Your task to perform on an android device: Search for sushi restaurants on Maps Image 0: 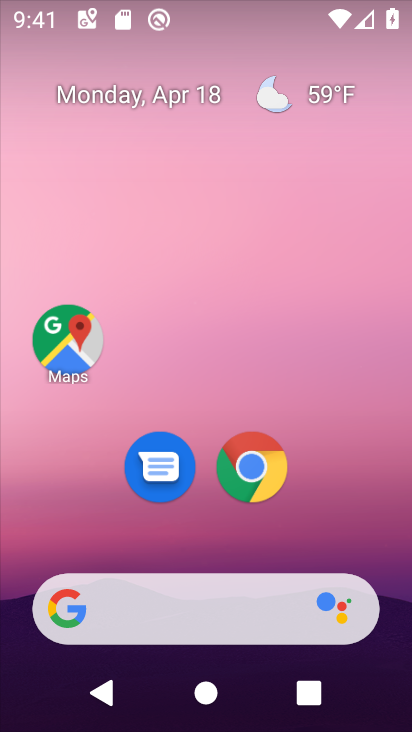
Step 0: click (72, 339)
Your task to perform on an android device: Search for sushi restaurants on Maps Image 1: 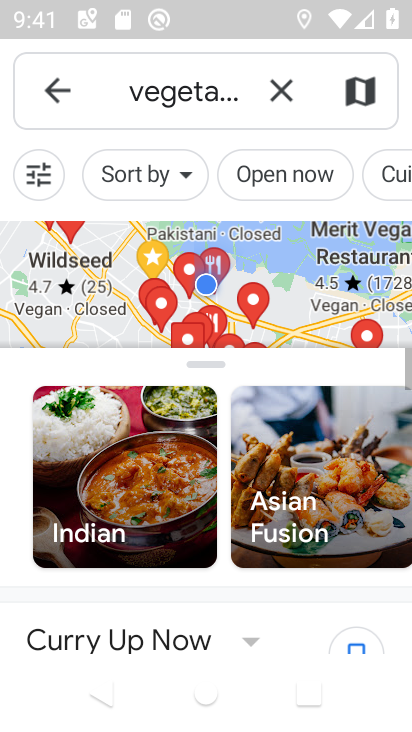
Step 1: click (271, 87)
Your task to perform on an android device: Search for sushi restaurants on Maps Image 2: 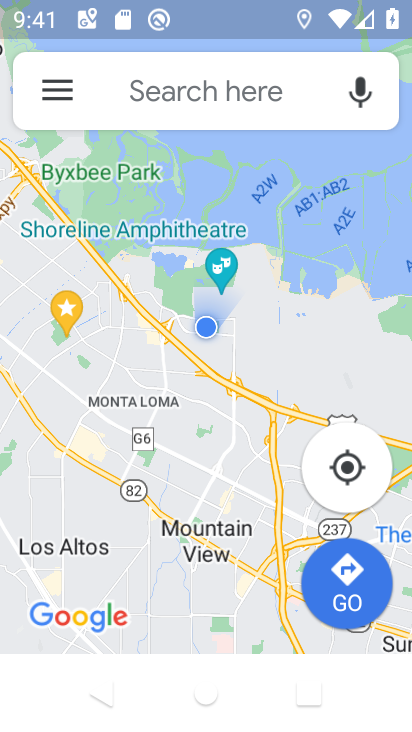
Step 2: click (217, 88)
Your task to perform on an android device: Search for sushi restaurants on Maps Image 3: 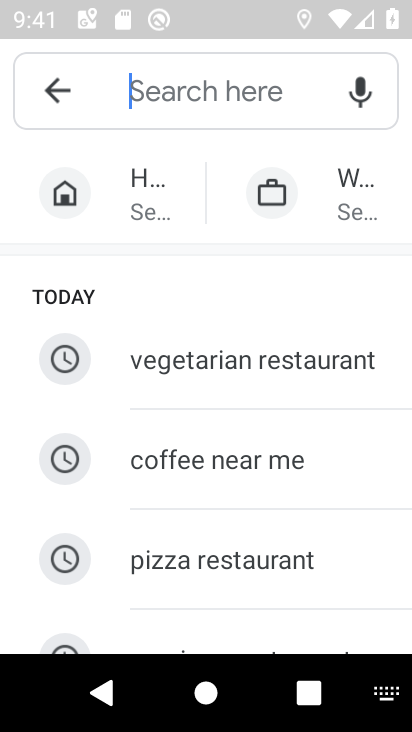
Step 3: drag from (240, 540) to (264, 100)
Your task to perform on an android device: Search for sushi restaurants on Maps Image 4: 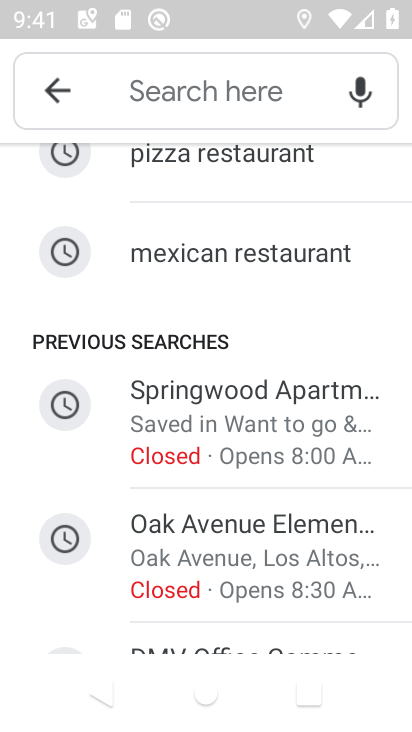
Step 4: drag from (232, 293) to (223, 677)
Your task to perform on an android device: Search for sushi restaurants on Maps Image 5: 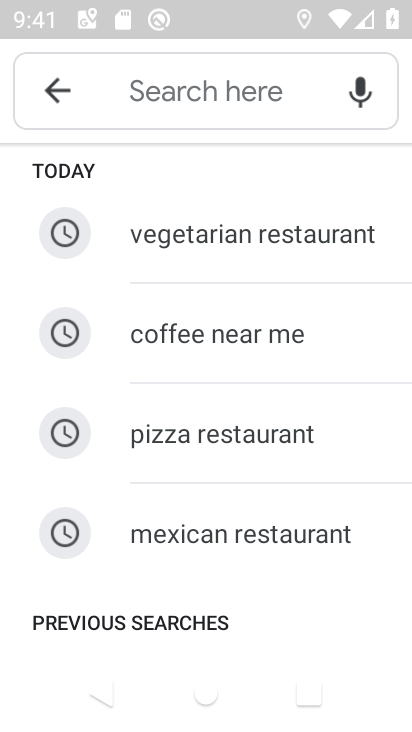
Step 5: click (165, 107)
Your task to perform on an android device: Search for sushi restaurants on Maps Image 6: 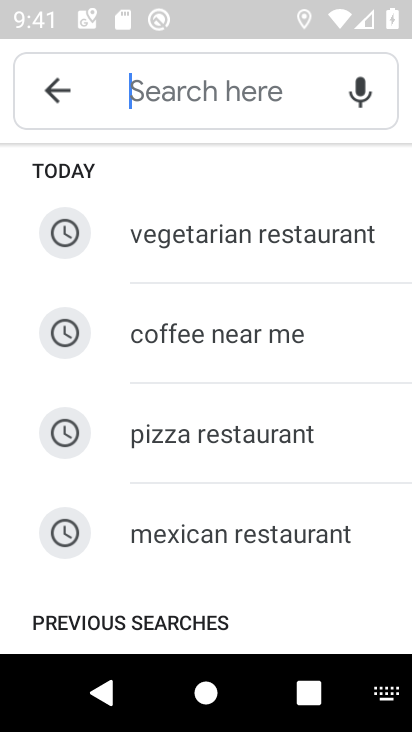
Step 6: type "sushi"
Your task to perform on an android device: Search for sushi restaurants on Maps Image 7: 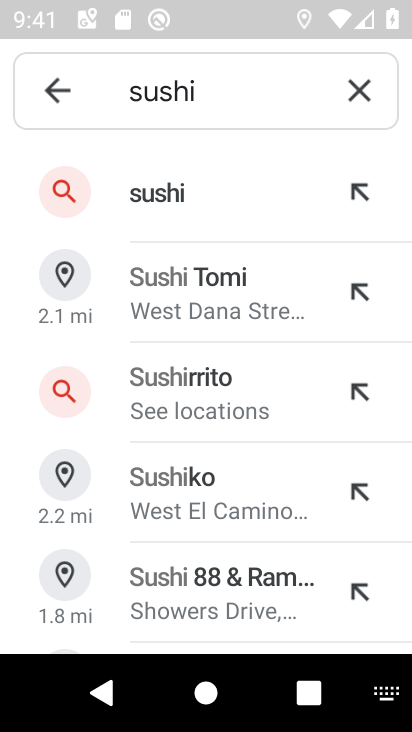
Step 7: click (227, 199)
Your task to perform on an android device: Search for sushi restaurants on Maps Image 8: 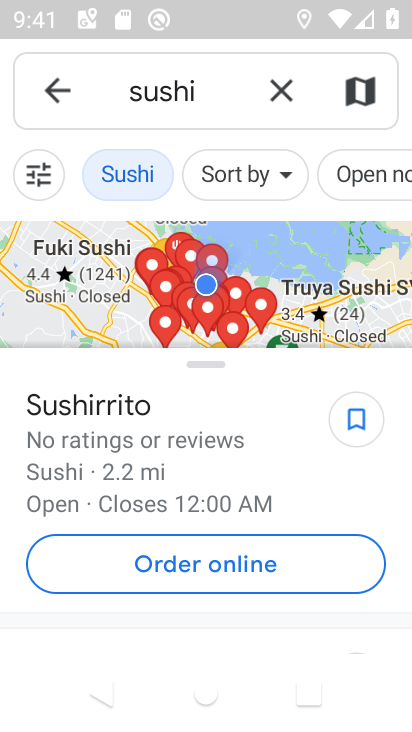
Step 8: task complete